Your task to perform on an android device: Do I have any events tomorrow? Image 0: 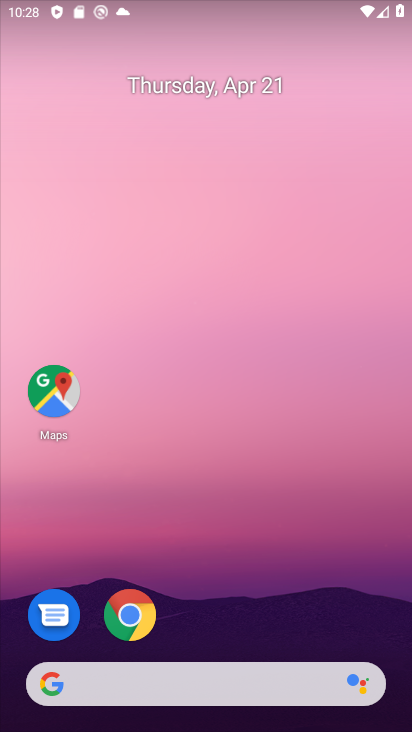
Step 0: drag from (226, 646) to (224, 145)
Your task to perform on an android device: Do I have any events tomorrow? Image 1: 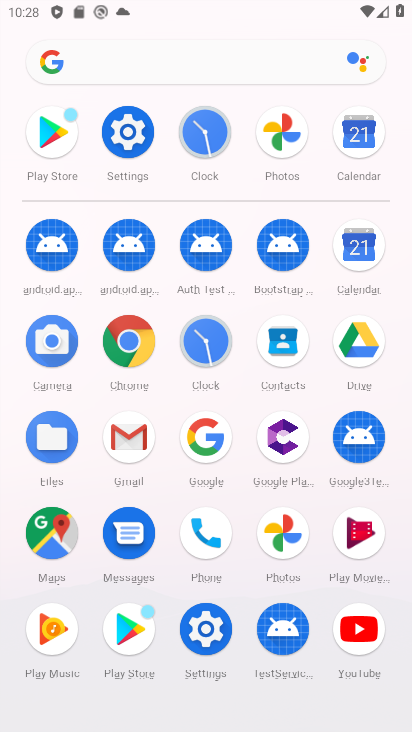
Step 1: click (352, 250)
Your task to perform on an android device: Do I have any events tomorrow? Image 2: 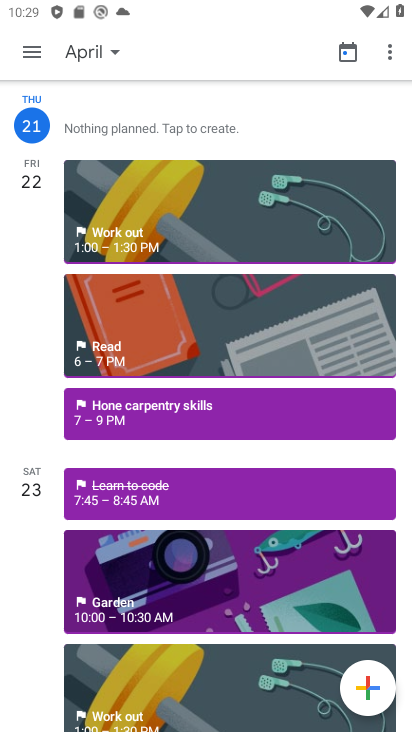
Step 2: click (38, 238)
Your task to perform on an android device: Do I have any events tomorrow? Image 3: 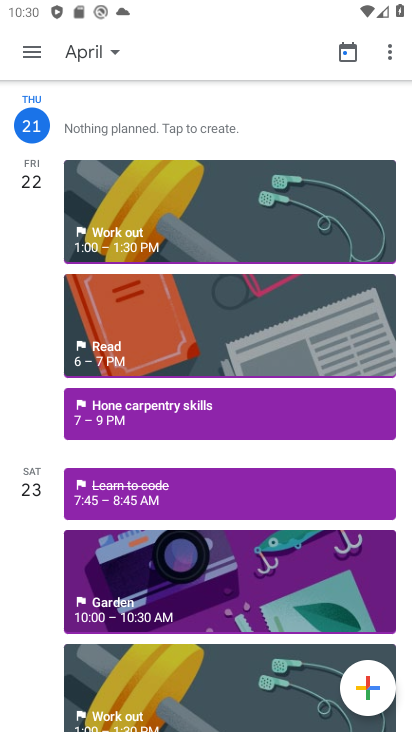
Step 3: click (36, 216)
Your task to perform on an android device: Do I have any events tomorrow? Image 4: 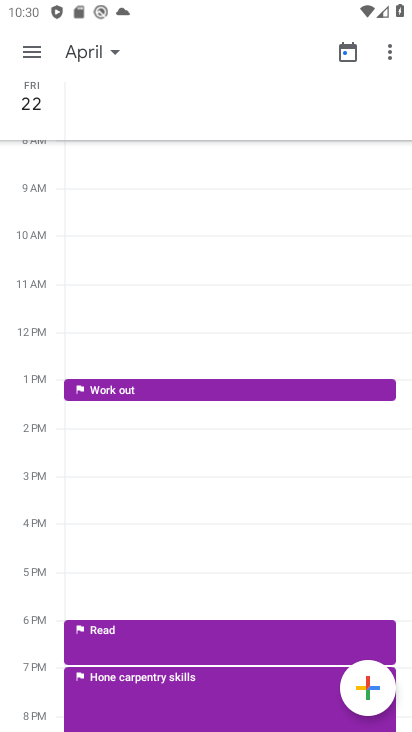
Step 4: task complete